Your task to perform on an android device: Open ESPN.com Image 0: 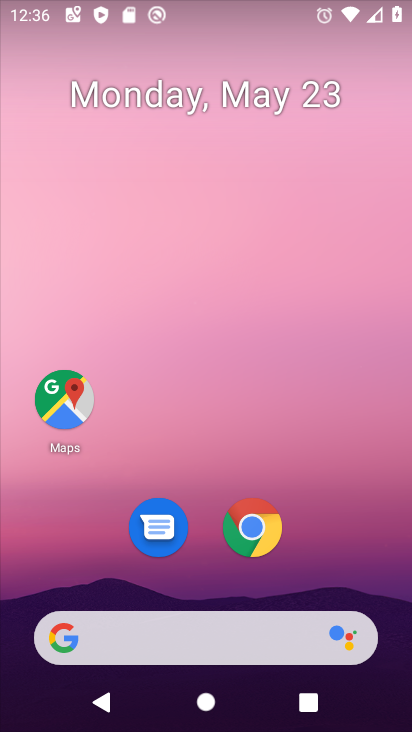
Step 0: click (240, 530)
Your task to perform on an android device: Open ESPN.com Image 1: 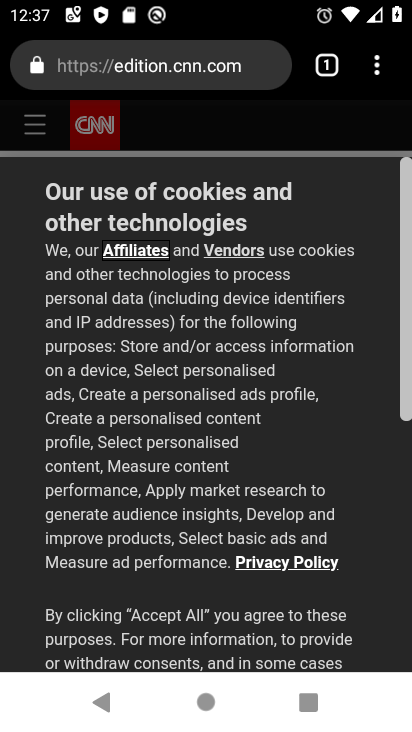
Step 1: click (173, 48)
Your task to perform on an android device: Open ESPN.com Image 2: 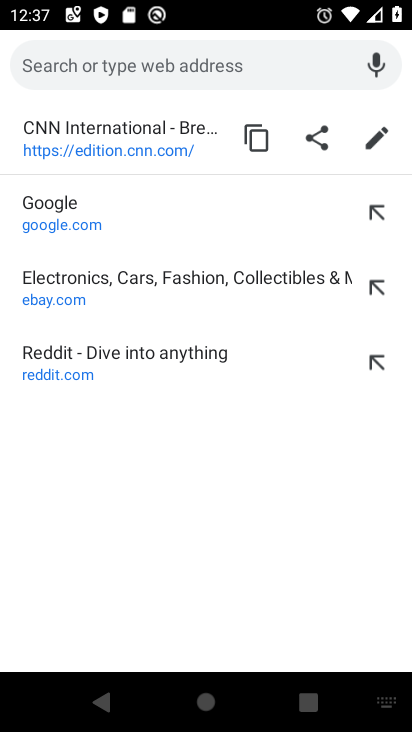
Step 2: type "espn"
Your task to perform on an android device: Open ESPN.com Image 3: 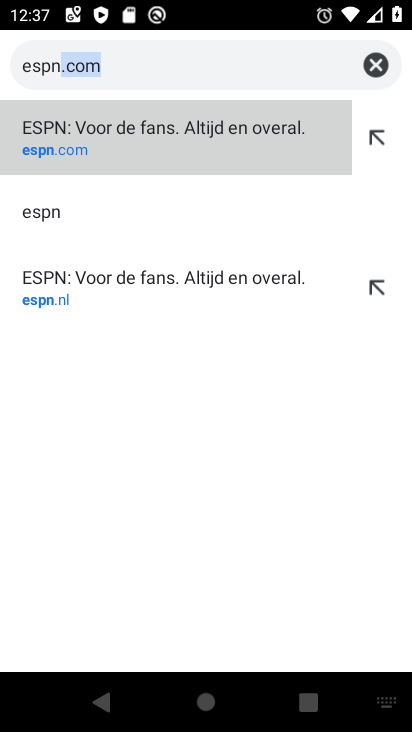
Step 3: click (89, 151)
Your task to perform on an android device: Open ESPN.com Image 4: 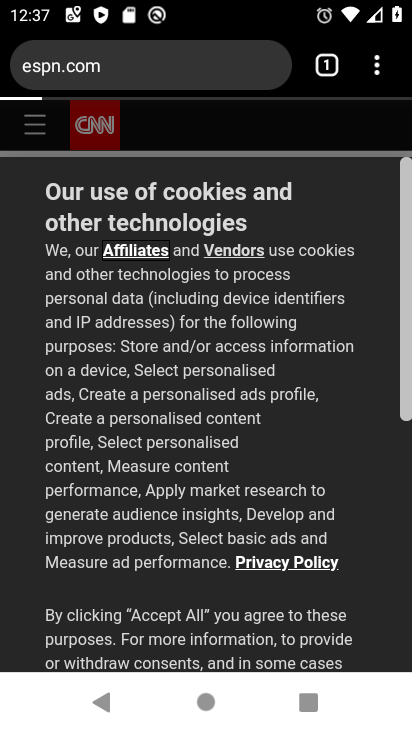
Step 4: task complete